Your task to perform on an android device: open device folders in google photos Image 0: 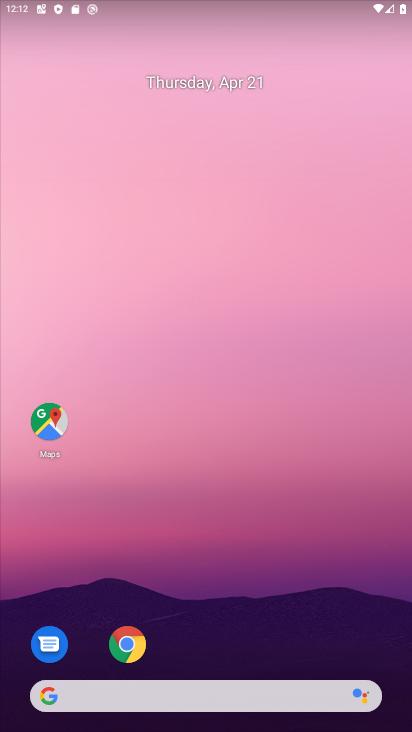
Step 0: drag from (244, 585) to (308, 116)
Your task to perform on an android device: open device folders in google photos Image 1: 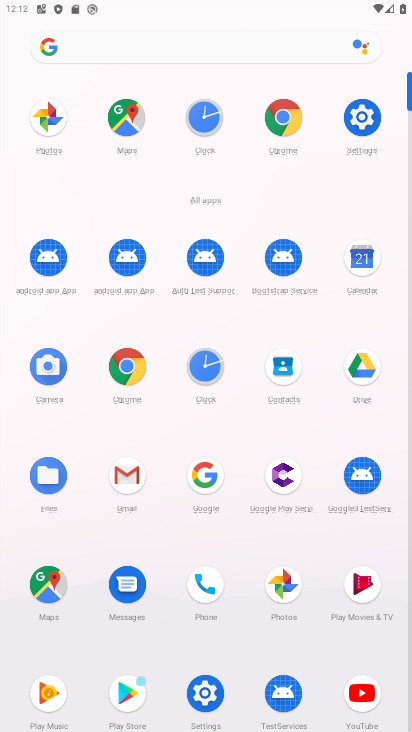
Step 1: click (274, 581)
Your task to perform on an android device: open device folders in google photos Image 2: 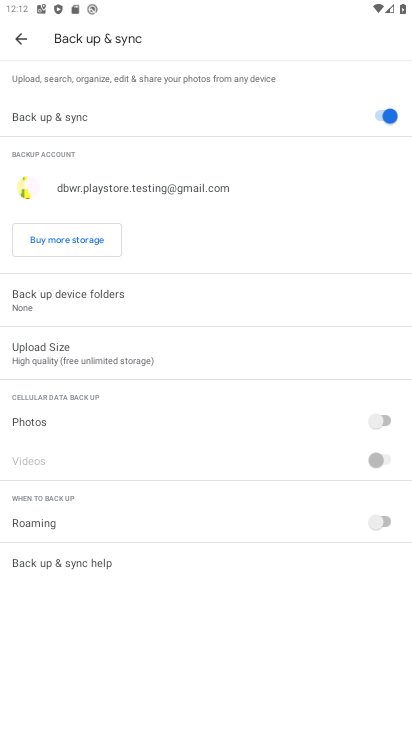
Step 2: click (19, 37)
Your task to perform on an android device: open device folders in google photos Image 3: 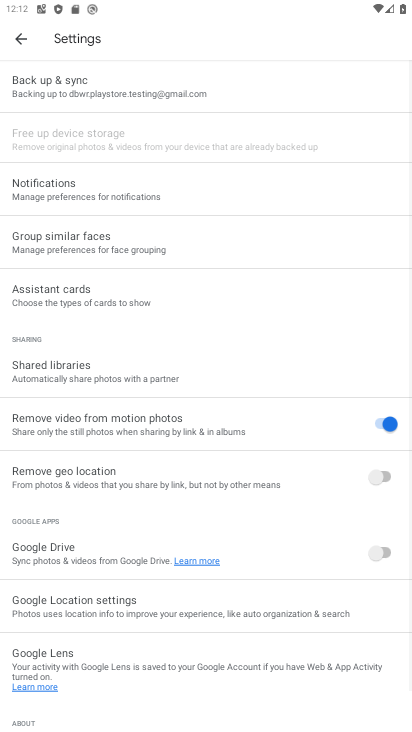
Step 3: click (16, 33)
Your task to perform on an android device: open device folders in google photos Image 4: 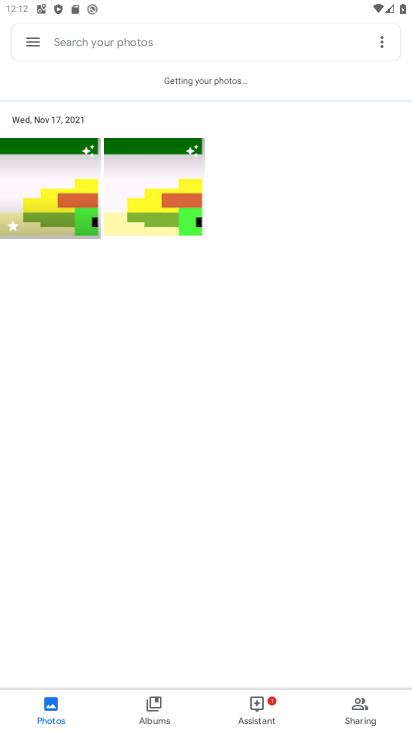
Step 4: click (37, 43)
Your task to perform on an android device: open device folders in google photos Image 5: 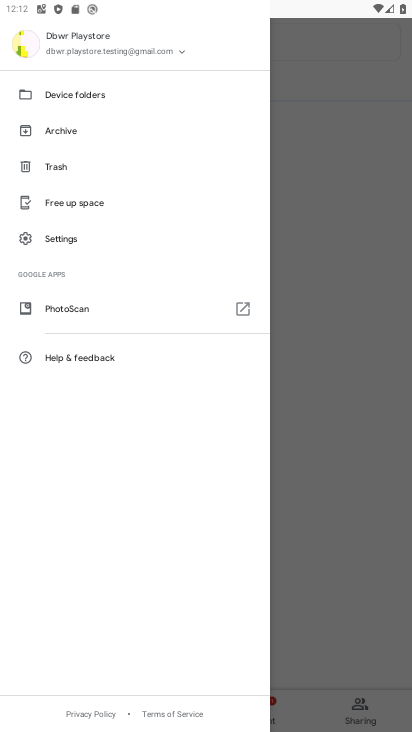
Step 5: click (90, 101)
Your task to perform on an android device: open device folders in google photos Image 6: 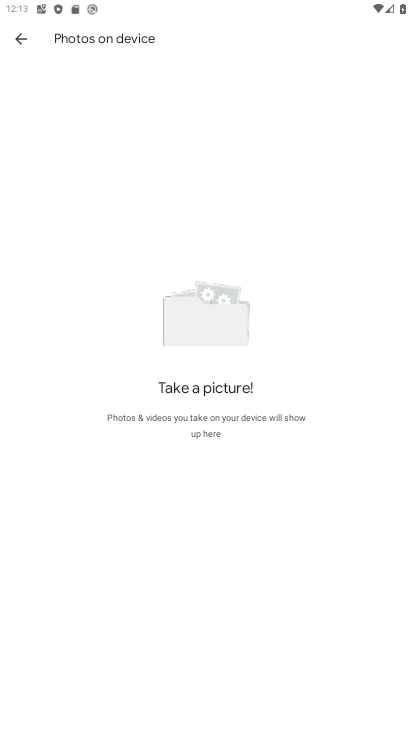
Step 6: task complete